Your task to perform on an android device: toggle sleep mode Image 0: 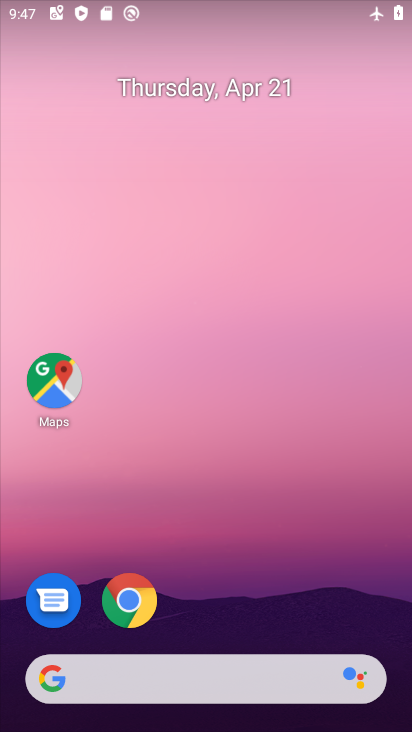
Step 0: drag from (249, 588) to (215, 72)
Your task to perform on an android device: toggle sleep mode Image 1: 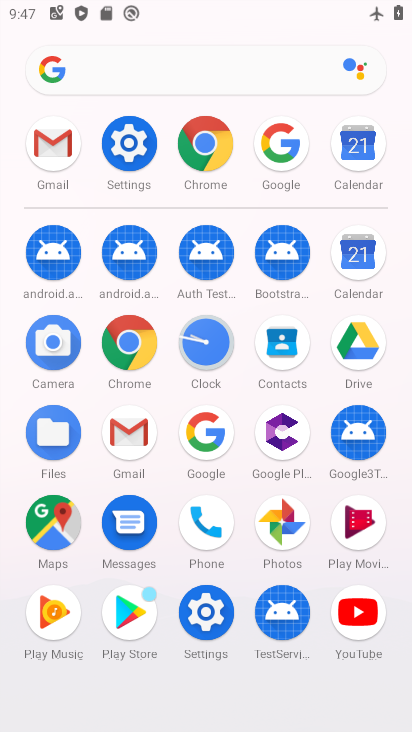
Step 1: click (130, 140)
Your task to perform on an android device: toggle sleep mode Image 2: 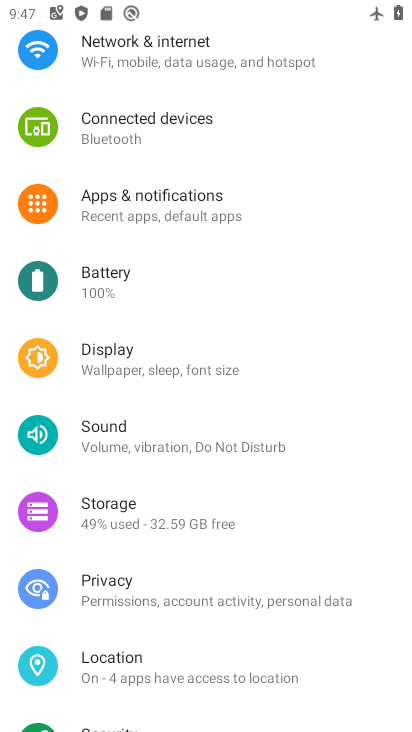
Step 2: click (139, 367)
Your task to perform on an android device: toggle sleep mode Image 3: 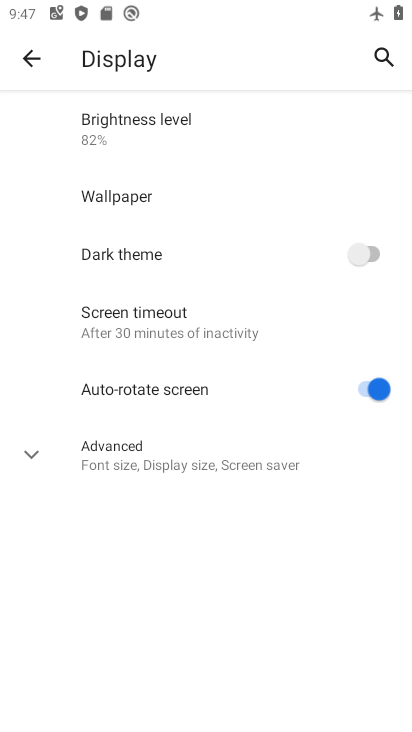
Step 3: click (169, 455)
Your task to perform on an android device: toggle sleep mode Image 4: 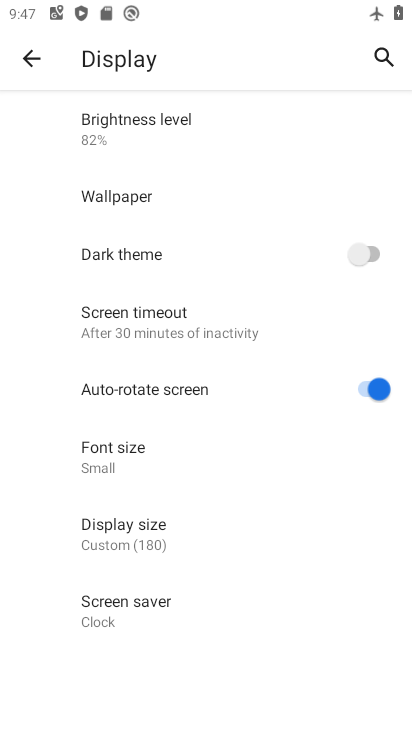
Step 4: click (148, 329)
Your task to perform on an android device: toggle sleep mode Image 5: 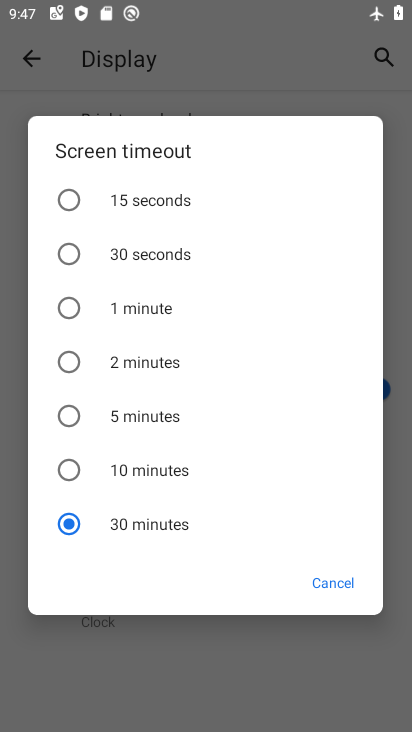
Step 5: click (75, 309)
Your task to perform on an android device: toggle sleep mode Image 6: 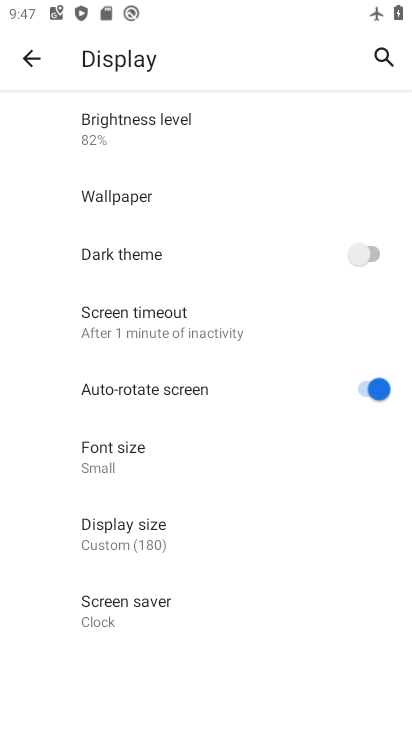
Step 6: task complete